Your task to perform on an android device: toggle notification dots Image 0: 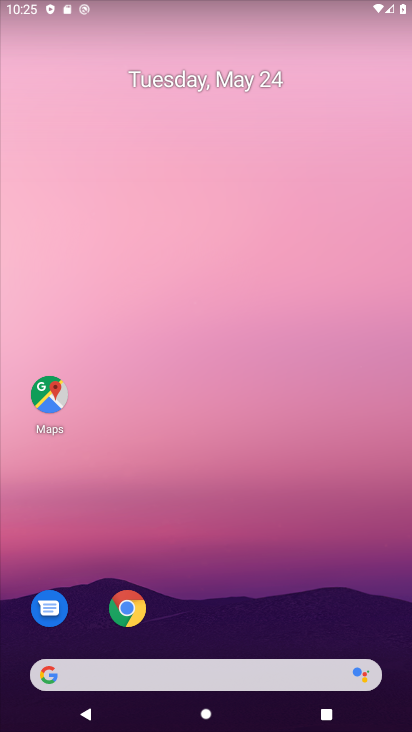
Step 0: drag from (391, 624) to (289, 68)
Your task to perform on an android device: toggle notification dots Image 1: 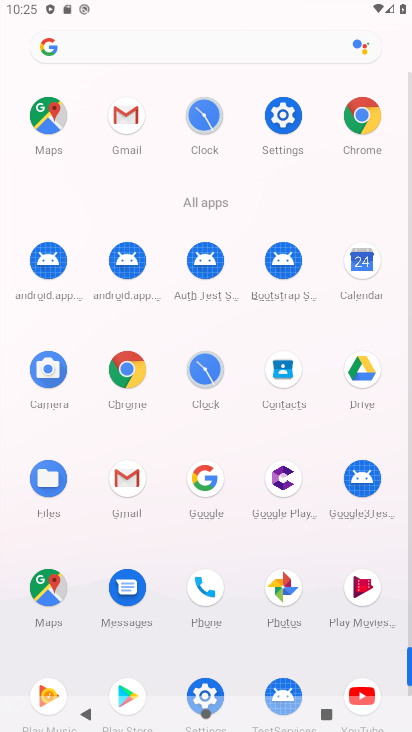
Step 1: click (409, 690)
Your task to perform on an android device: toggle notification dots Image 2: 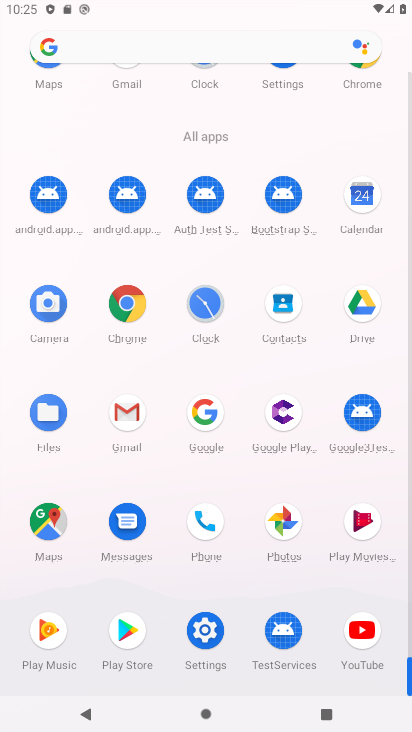
Step 2: click (203, 631)
Your task to perform on an android device: toggle notification dots Image 3: 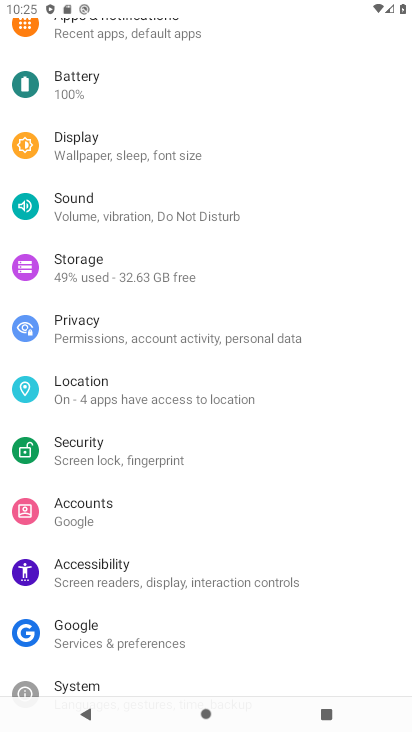
Step 3: drag from (281, 129) to (316, 485)
Your task to perform on an android device: toggle notification dots Image 4: 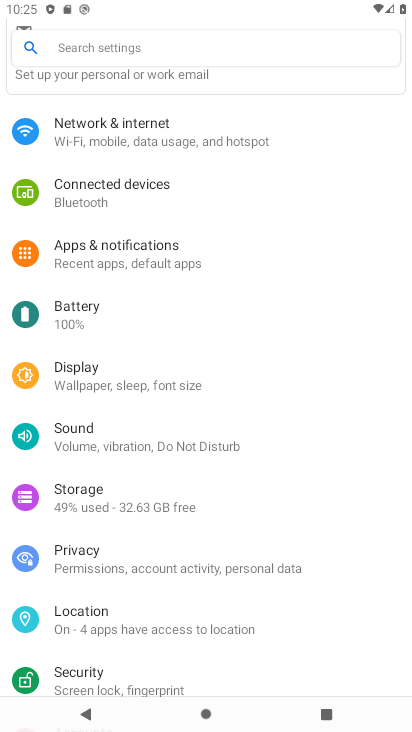
Step 4: click (83, 252)
Your task to perform on an android device: toggle notification dots Image 5: 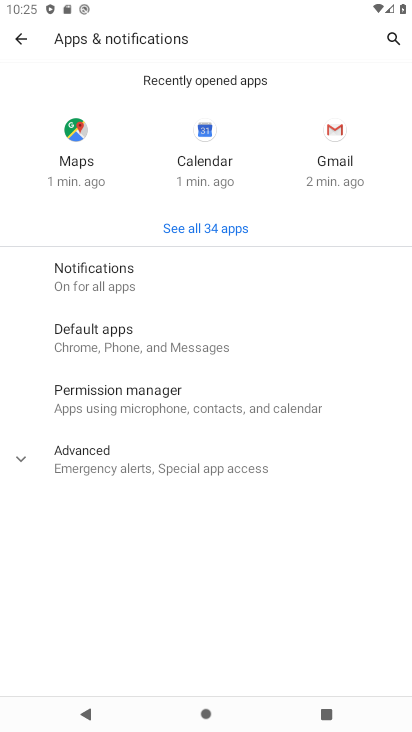
Step 5: click (66, 269)
Your task to perform on an android device: toggle notification dots Image 6: 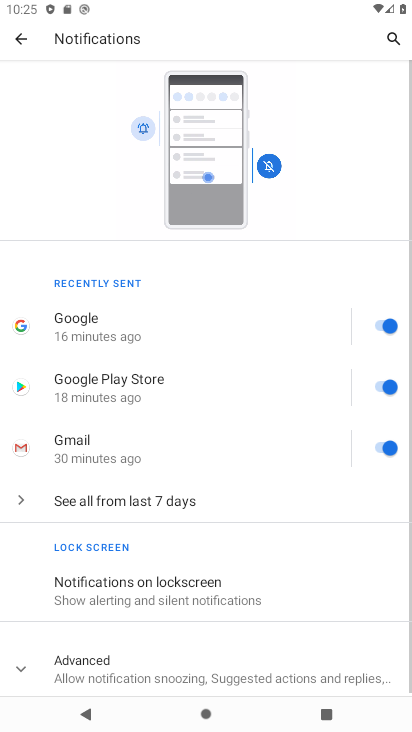
Step 6: drag from (270, 650) to (281, 192)
Your task to perform on an android device: toggle notification dots Image 7: 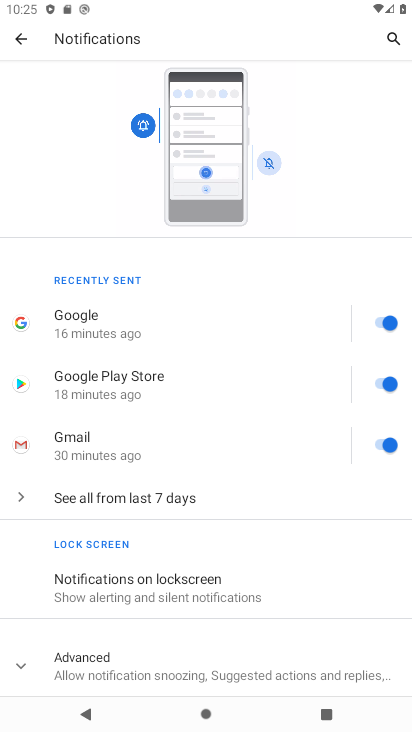
Step 7: click (17, 660)
Your task to perform on an android device: toggle notification dots Image 8: 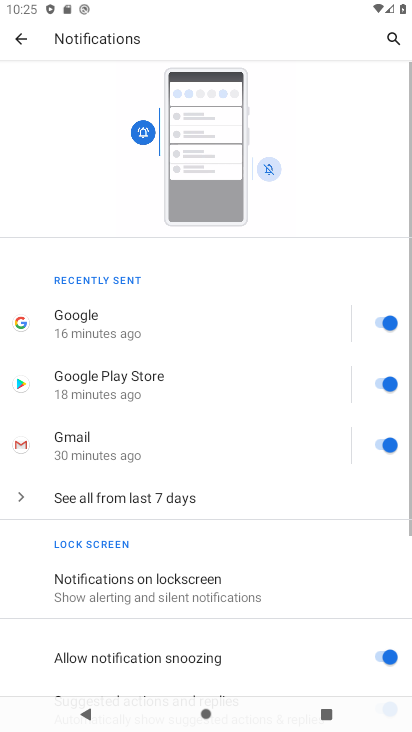
Step 8: drag from (265, 672) to (260, 125)
Your task to perform on an android device: toggle notification dots Image 9: 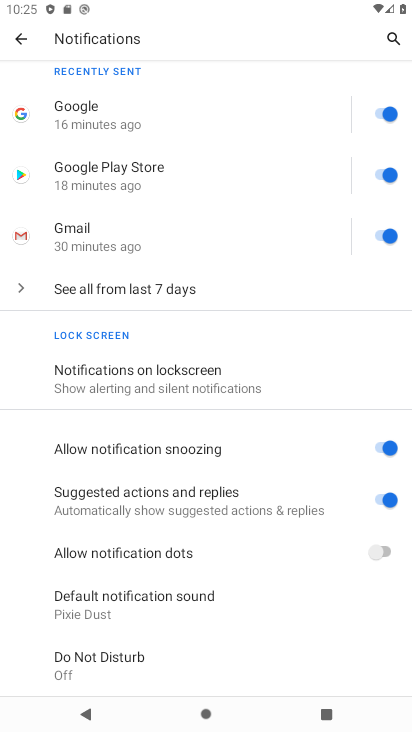
Step 9: click (387, 547)
Your task to perform on an android device: toggle notification dots Image 10: 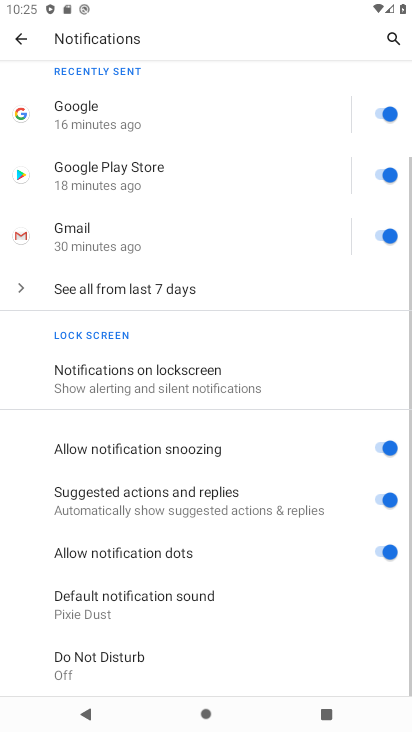
Step 10: task complete